Your task to perform on an android device: Go to Google Image 0: 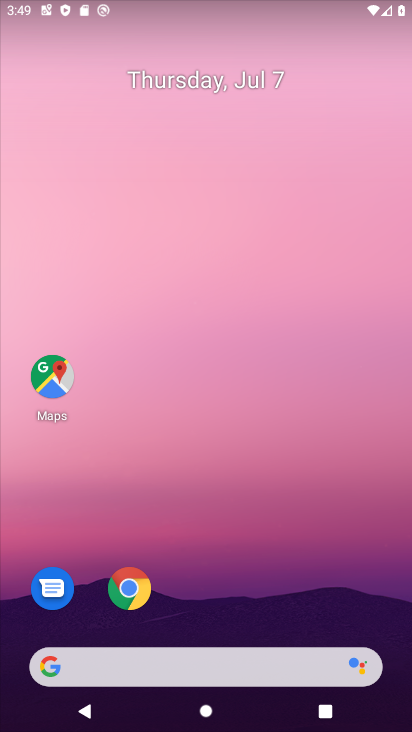
Step 0: click (192, 661)
Your task to perform on an android device: Go to Google Image 1: 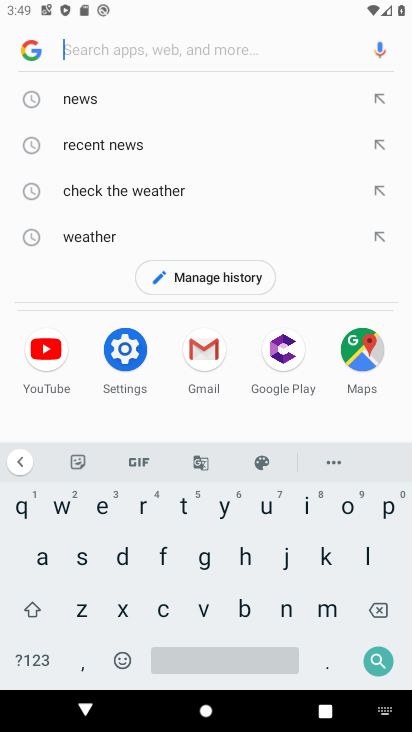
Step 1: click (30, 47)
Your task to perform on an android device: Go to Google Image 2: 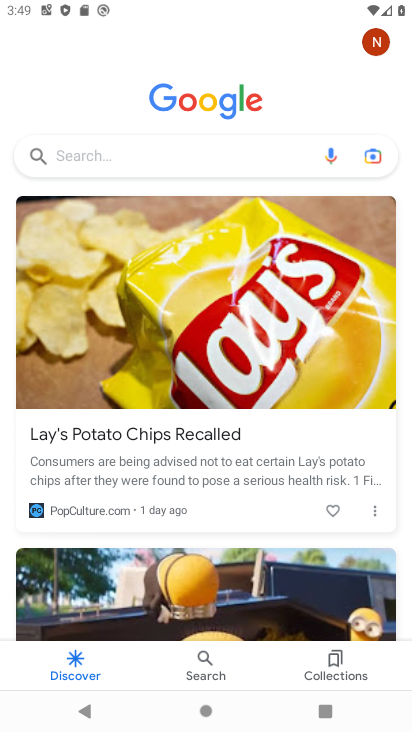
Step 2: task complete